Your task to perform on an android device: Open Youtube and go to the subscriptions tab Image 0: 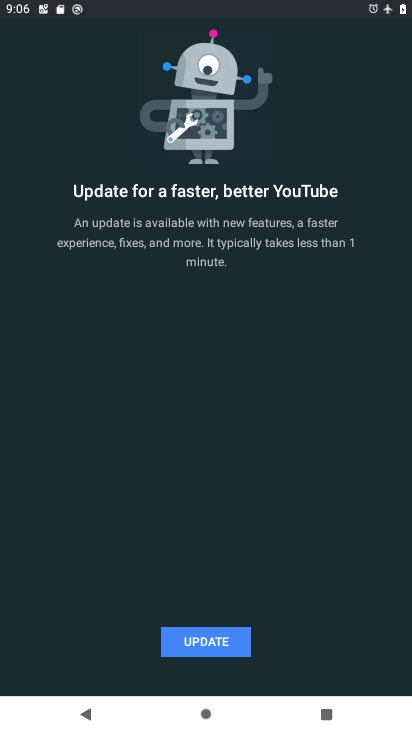
Step 0: task complete